Your task to perform on an android device: check the backup settings in the google photos Image 0: 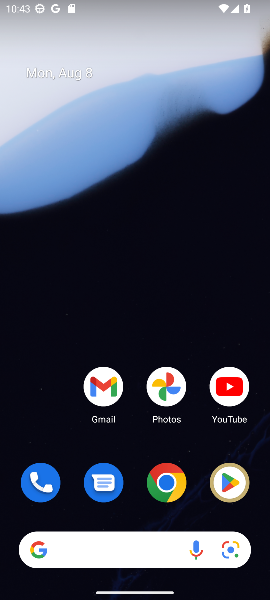
Step 0: click (164, 387)
Your task to perform on an android device: check the backup settings in the google photos Image 1: 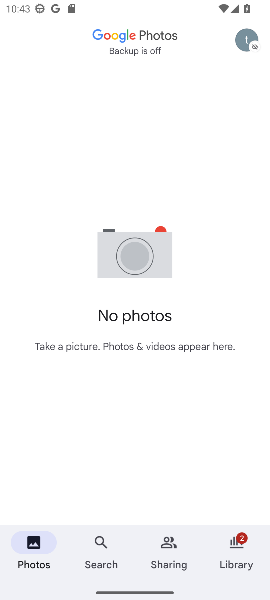
Step 1: click (241, 39)
Your task to perform on an android device: check the backup settings in the google photos Image 2: 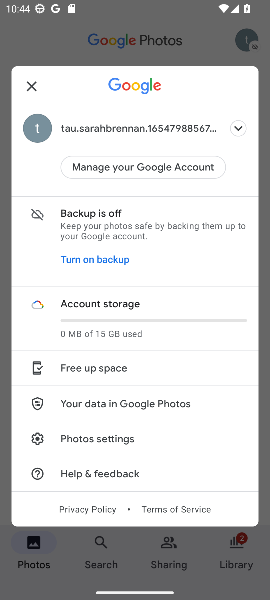
Step 2: click (93, 436)
Your task to perform on an android device: check the backup settings in the google photos Image 3: 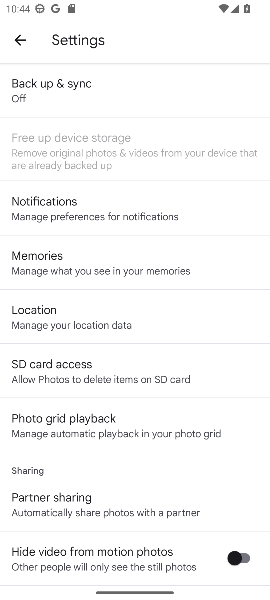
Step 3: click (63, 84)
Your task to perform on an android device: check the backup settings in the google photos Image 4: 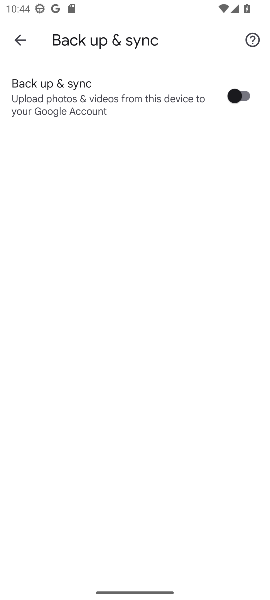
Step 4: task complete